Your task to perform on an android device: turn on bluetooth scan Image 0: 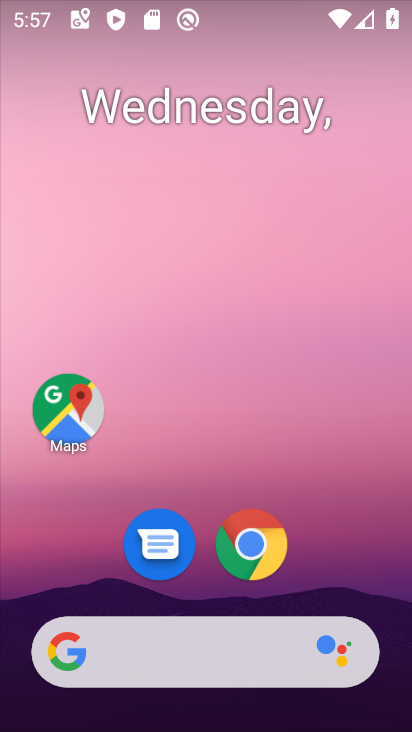
Step 0: drag from (334, 460) to (262, 1)
Your task to perform on an android device: turn on bluetooth scan Image 1: 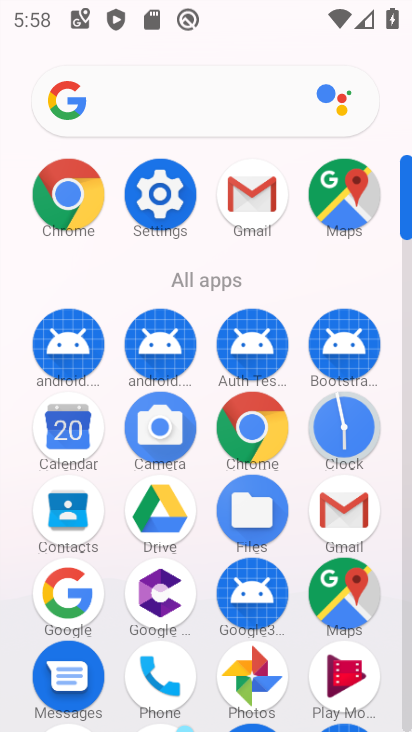
Step 1: click (168, 203)
Your task to perform on an android device: turn on bluetooth scan Image 2: 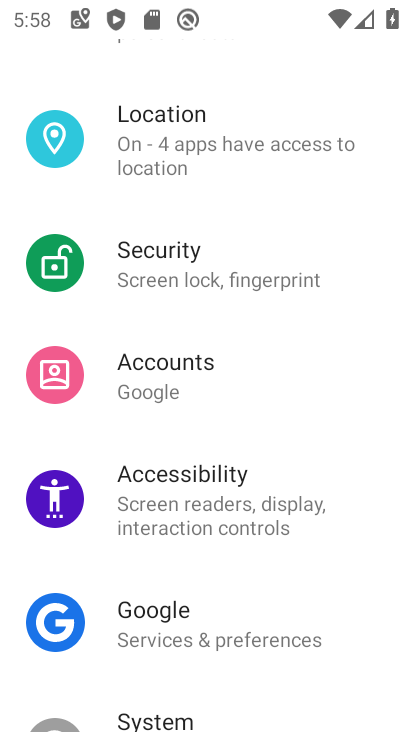
Step 2: click (191, 149)
Your task to perform on an android device: turn on bluetooth scan Image 3: 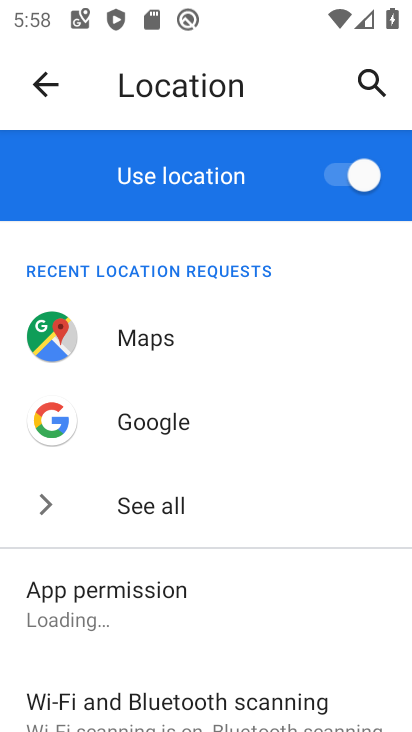
Step 3: drag from (252, 663) to (265, 360)
Your task to perform on an android device: turn on bluetooth scan Image 4: 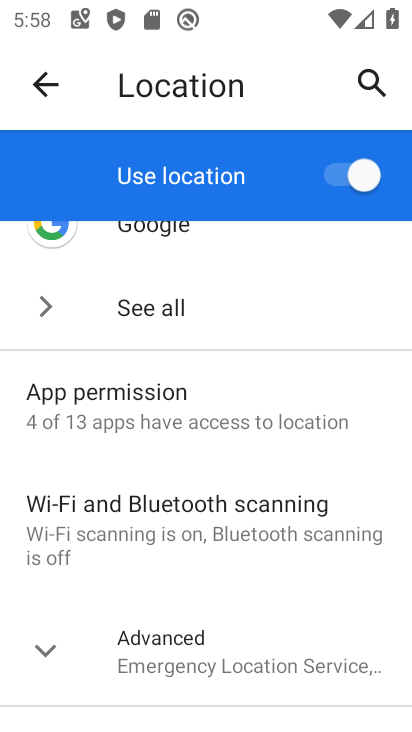
Step 4: click (253, 509)
Your task to perform on an android device: turn on bluetooth scan Image 5: 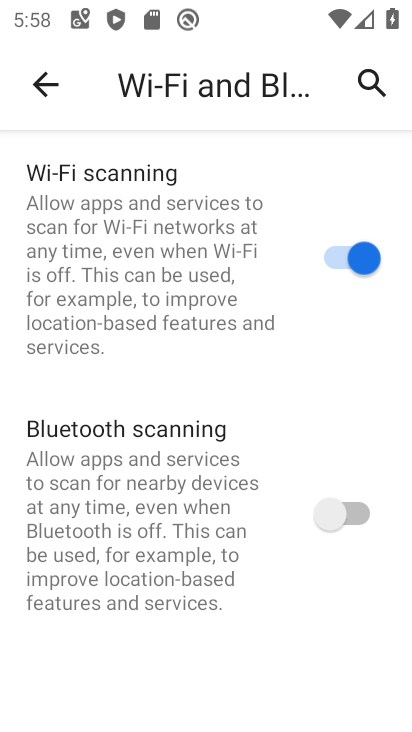
Step 5: click (333, 514)
Your task to perform on an android device: turn on bluetooth scan Image 6: 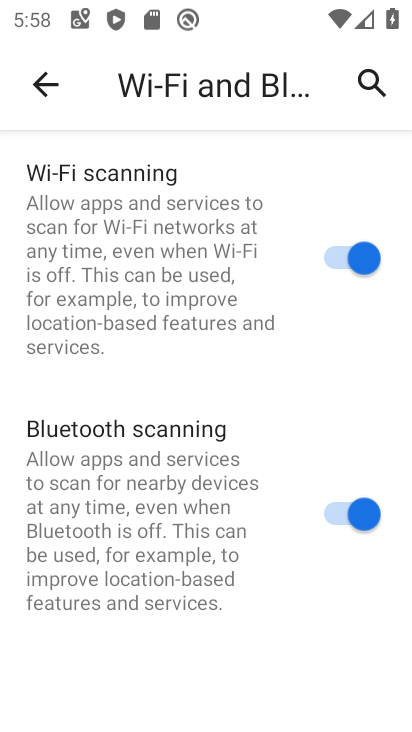
Step 6: task complete